Your task to perform on an android device: Search for sushi restaurants on Maps Image 0: 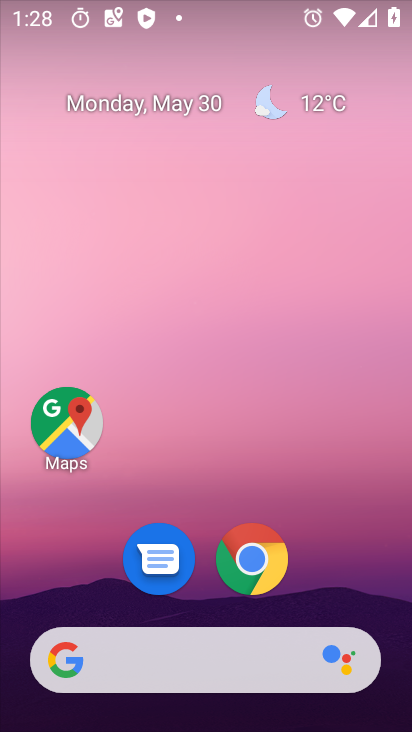
Step 0: click (65, 424)
Your task to perform on an android device: Search for sushi restaurants on Maps Image 1: 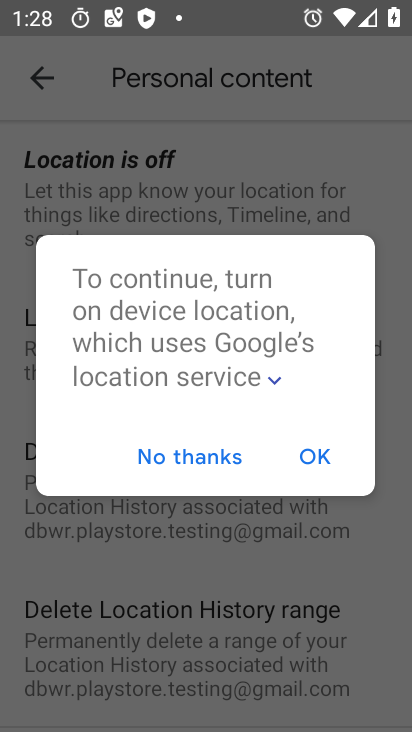
Step 1: click (189, 448)
Your task to perform on an android device: Search for sushi restaurants on Maps Image 2: 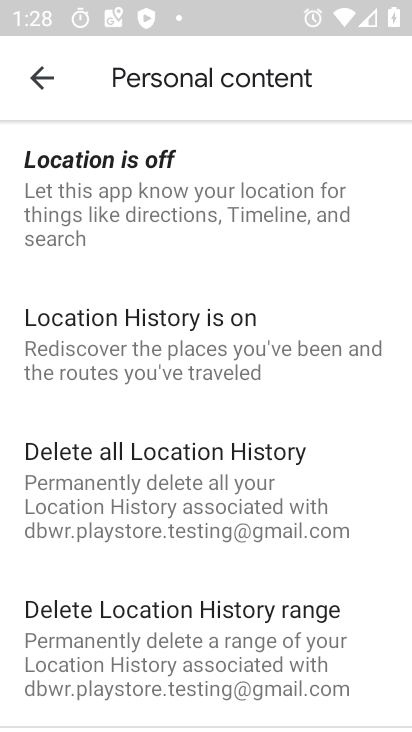
Step 2: click (42, 73)
Your task to perform on an android device: Search for sushi restaurants on Maps Image 3: 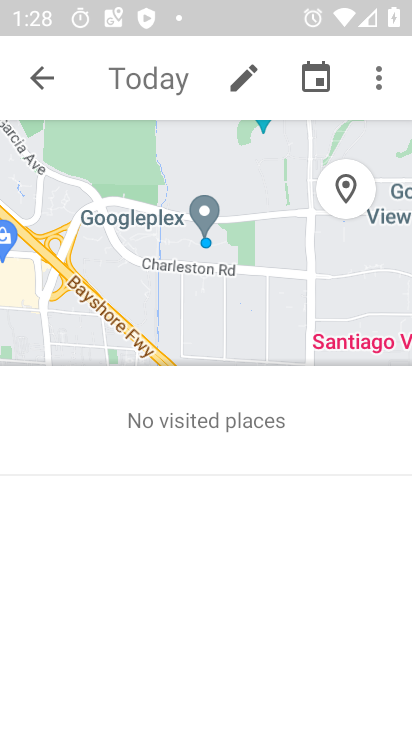
Step 3: click (44, 78)
Your task to perform on an android device: Search for sushi restaurants on Maps Image 4: 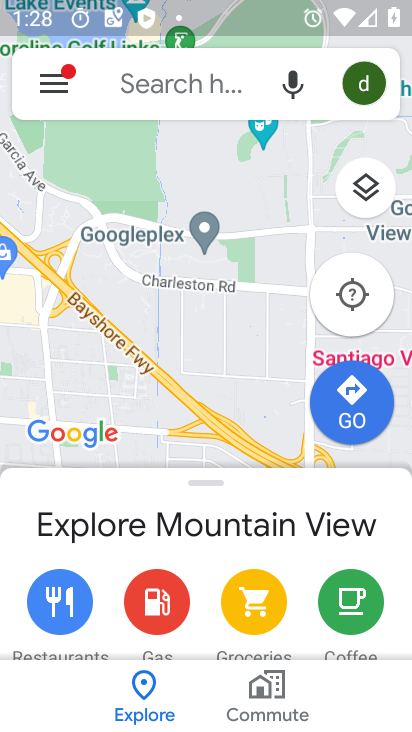
Step 4: click (152, 91)
Your task to perform on an android device: Search for sushi restaurants on Maps Image 5: 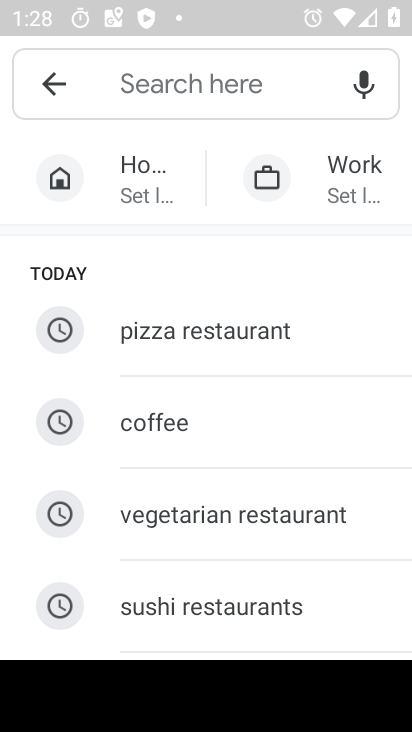
Step 5: click (155, 608)
Your task to perform on an android device: Search for sushi restaurants on Maps Image 6: 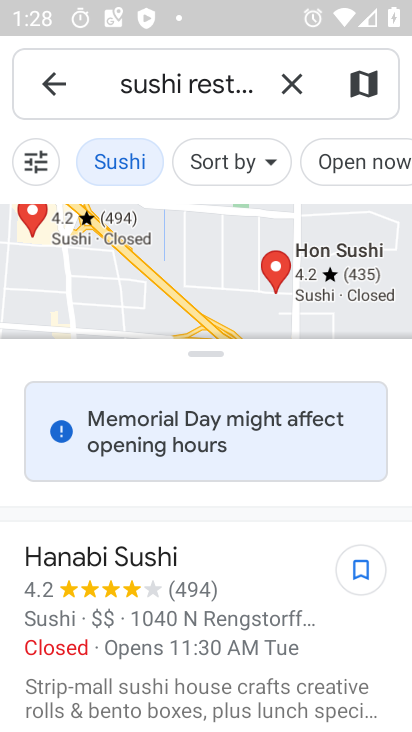
Step 6: task complete